Your task to perform on an android device: What's the weather? Image 0: 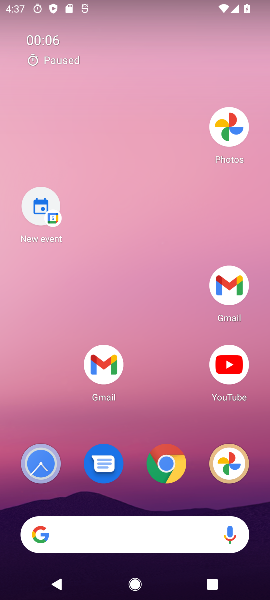
Step 0: drag from (189, 446) to (209, 53)
Your task to perform on an android device: What's the weather? Image 1: 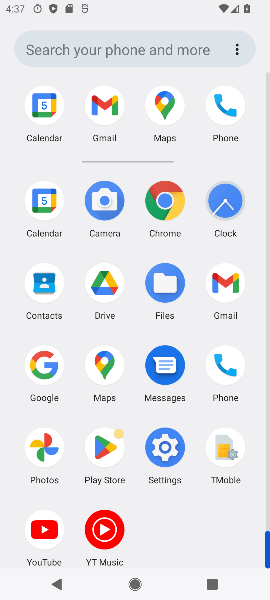
Step 1: click (166, 206)
Your task to perform on an android device: What's the weather? Image 2: 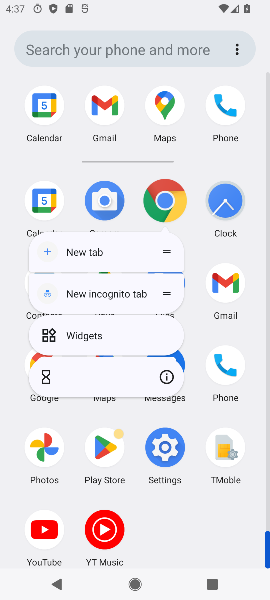
Step 2: click (166, 206)
Your task to perform on an android device: What's the weather? Image 3: 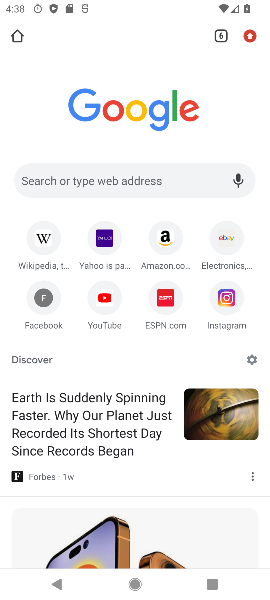
Step 3: click (59, 171)
Your task to perform on an android device: What's the weather? Image 4: 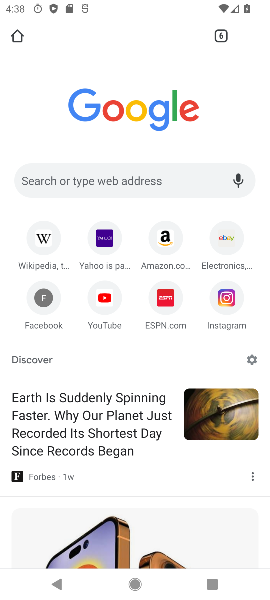
Step 4: click (59, 171)
Your task to perform on an android device: What's the weather? Image 5: 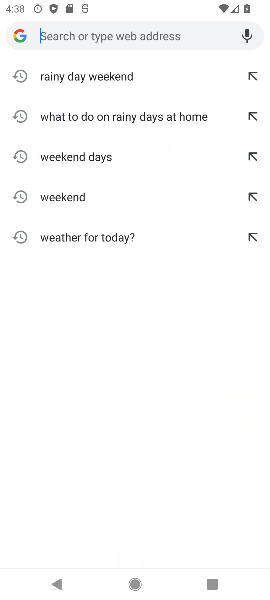
Step 5: click (59, 171)
Your task to perform on an android device: What's the weather? Image 6: 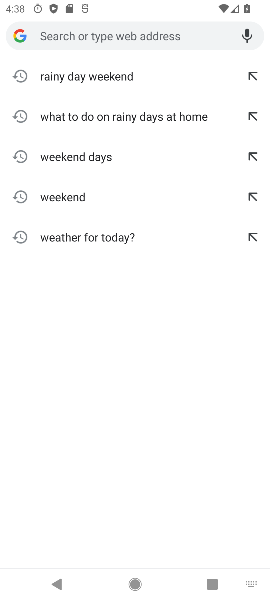
Step 6: click (65, 181)
Your task to perform on an android device: What's the weather? Image 7: 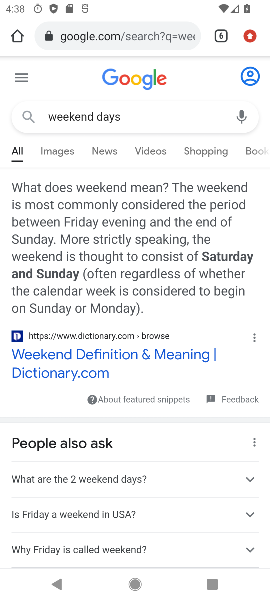
Step 7: press back button
Your task to perform on an android device: What's the weather? Image 8: 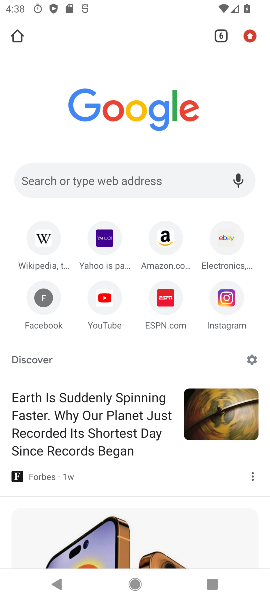
Step 8: click (62, 174)
Your task to perform on an android device: What's the weather? Image 9: 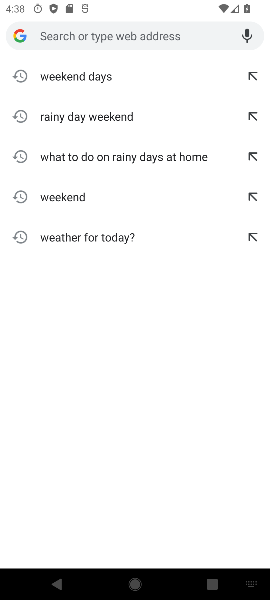
Step 9: type "weather "
Your task to perform on an android device: What's the weather? Image 10: 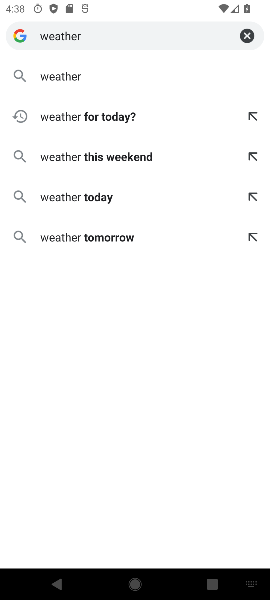
Step 10: click (64, 72)
Your task to perform on an android device: What's the weather? Image 11: 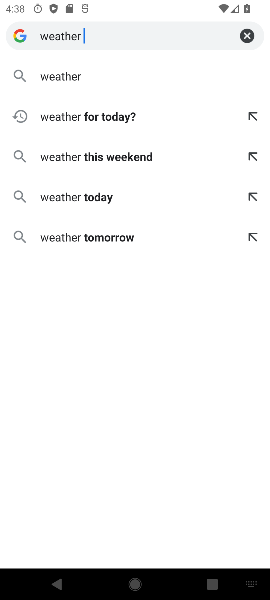
Step 11: click (64, 69)
Your task to perform on an android device: What's the weather? Image 12: 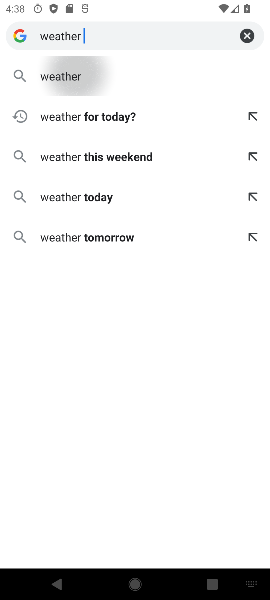
Step 12: click (64, 69)
Your task to perform on an android device: What's the weather? Image 13: 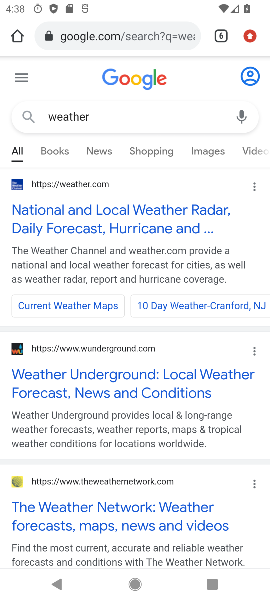
Step 13: task complete